Your task to perform on an android device: Search for flights from Boston to Zurich Image 0: 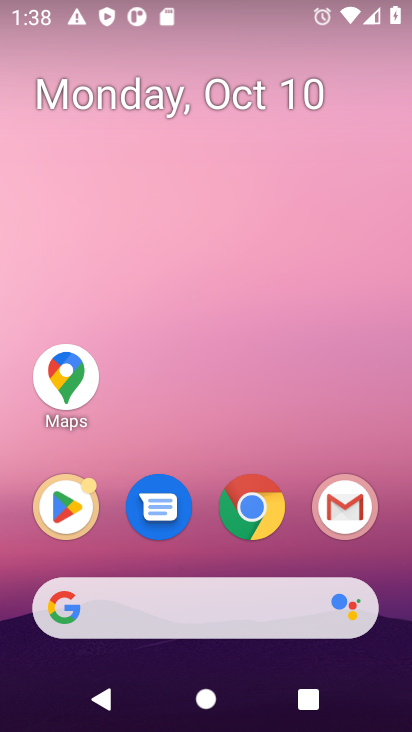
Step 0: press home button
Your task to perform on an android device: Search for flights from Boston to Zurich Image 1: 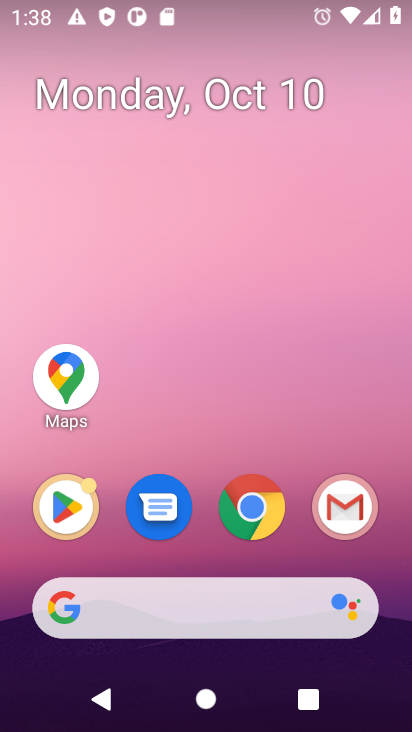
Step 1: click (284, 599)
Your task to perform on an android device: Search for flights from Boston to Zurich Image 2: 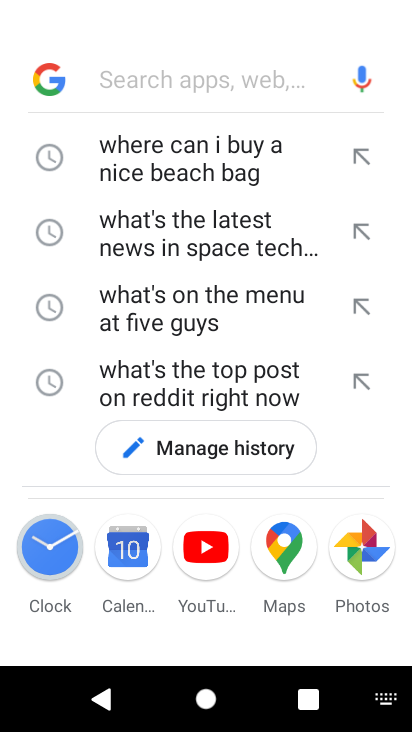
Step 2: type "flights from Boston to Zurich"
Your task to perform on an android device: Search for flights from Boston to Zurich Image 3: 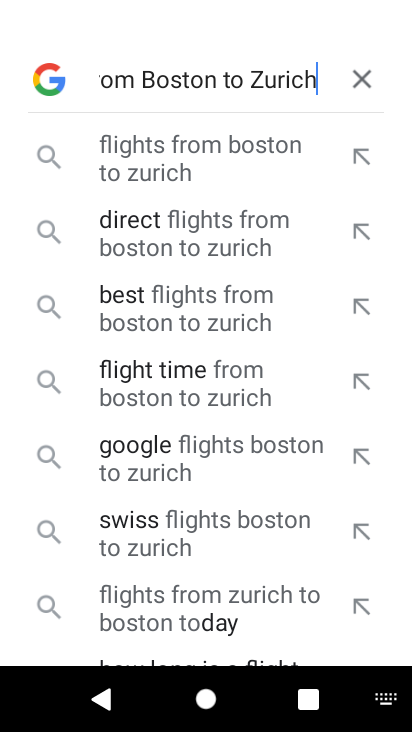
Step 3: press enter
Your task to perform on an android device: Search for flights from Boston to Zurich Image 4: 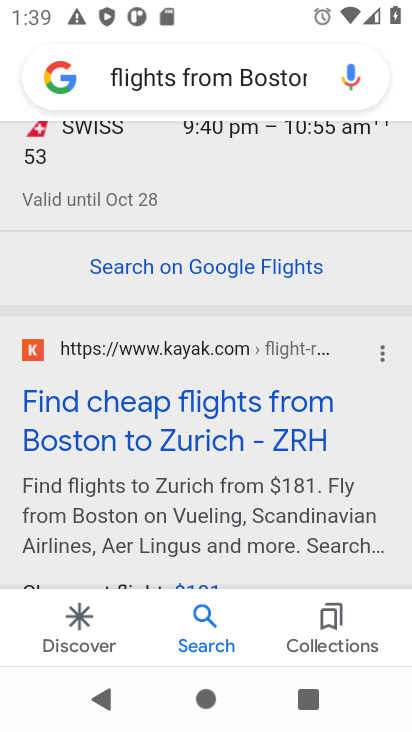
Step 4: task complete